Your task to perform on an android device: Go to Google Image 0: 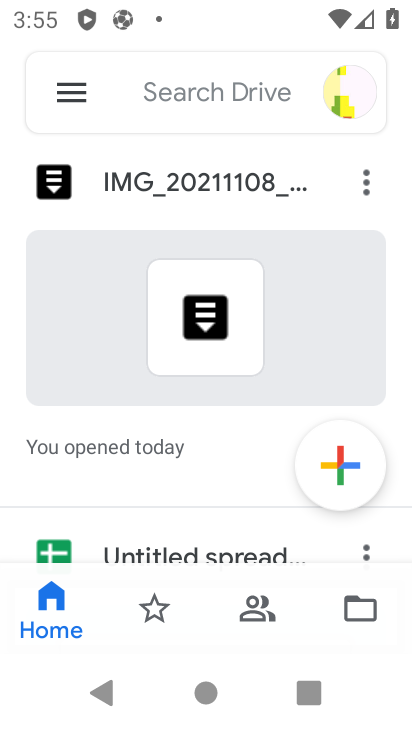
Step 0: press home button
Your task to perform on an android device: Go to Google Image 1: 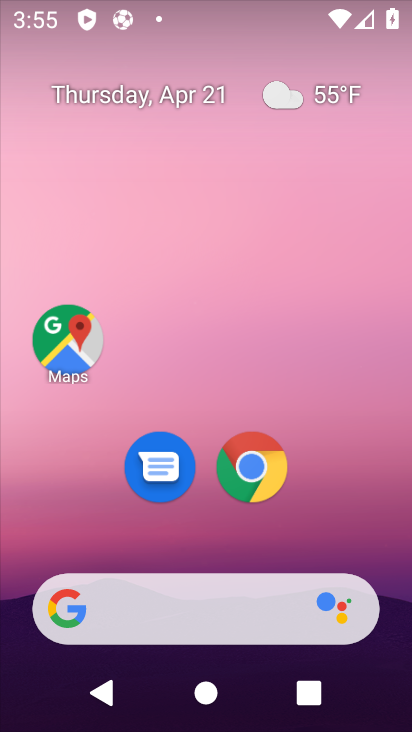
Step 1: drag from (197, 605) to (231, 168)
Your task to perform on an android device: Go to Google Image 2: 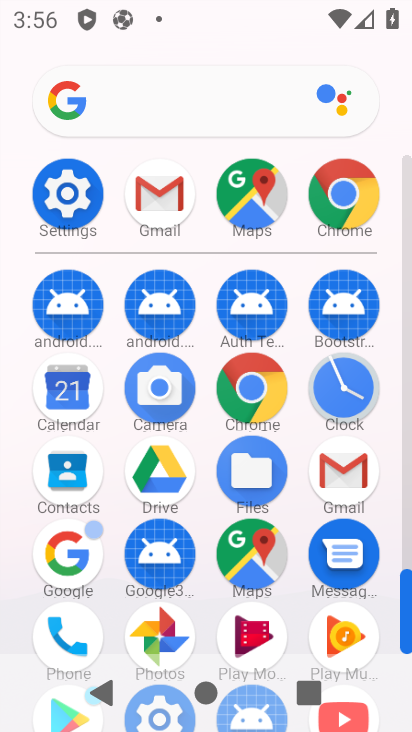
Step 2: drag from (184, 573) to (207, 276)
Your task to perform on an android device: Go to Google Image 3: 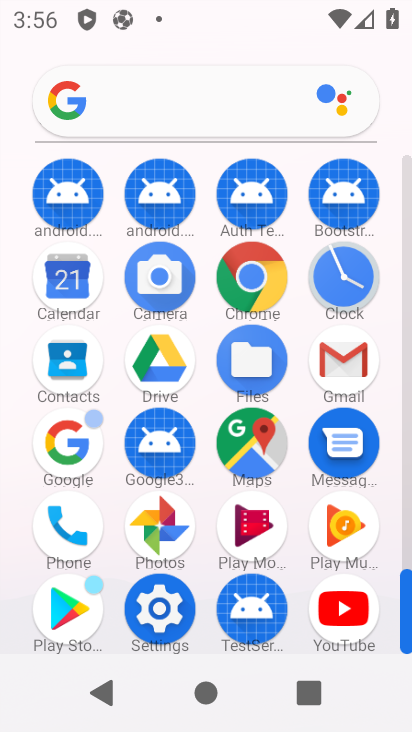
Step 3: click (165, 519)
Your task to perform on an android device: Go to Google Image 4: 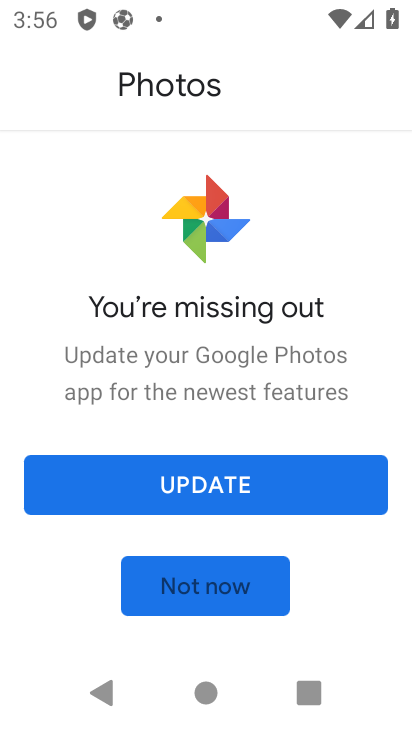
Step 4: click (187, 472)
Your task to perform on an android device: Go to Google Image 5: 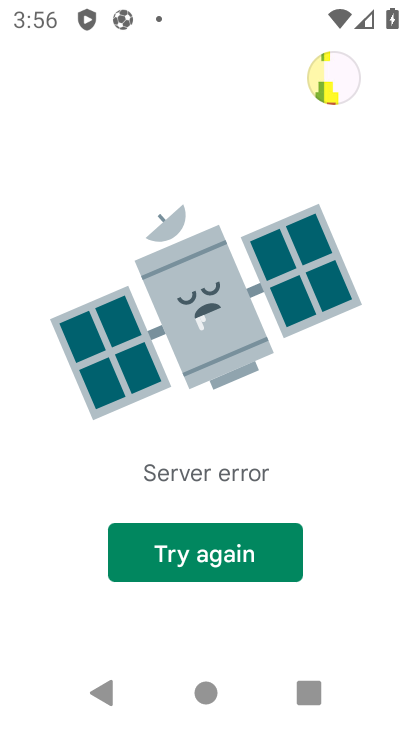
Step 5: click (208, 542)
Your task to perform on an android device: Go to Google Image 6: 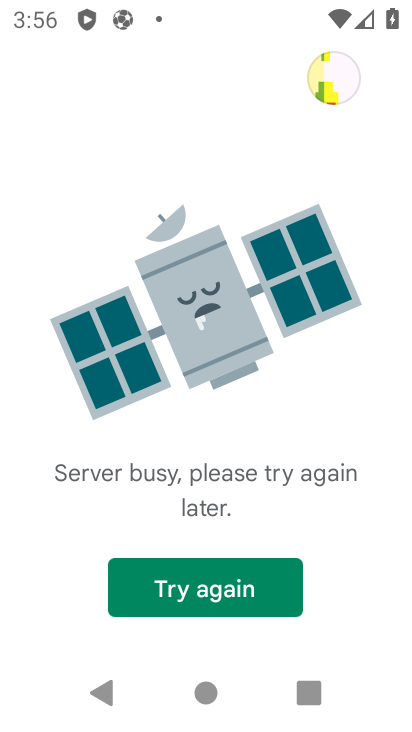
Step 6: task complete